Your task to perform on an android device: What's the weather? Image 0: 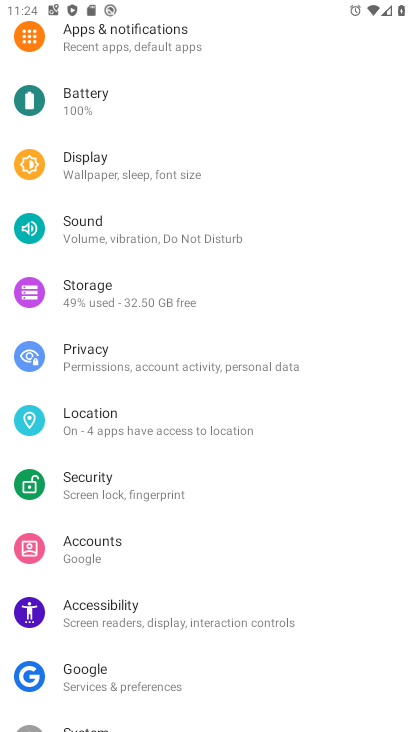
Step 0: press home button
Your task to perform on an android device: What's the weather? Image 1: 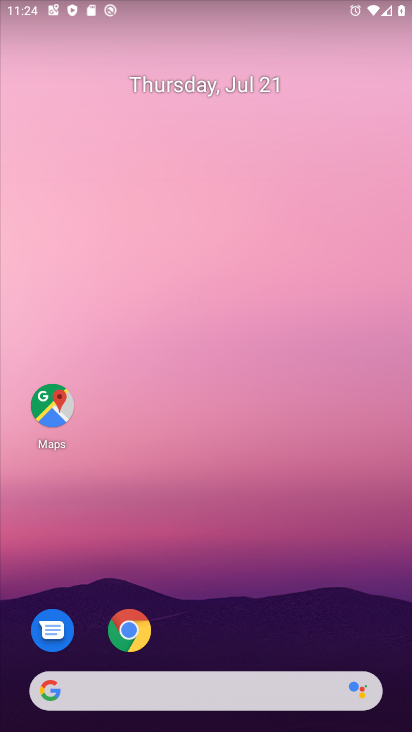
Step 1: click (230, 674)
Your task to perform on an android device: What's the weather? Image 2: 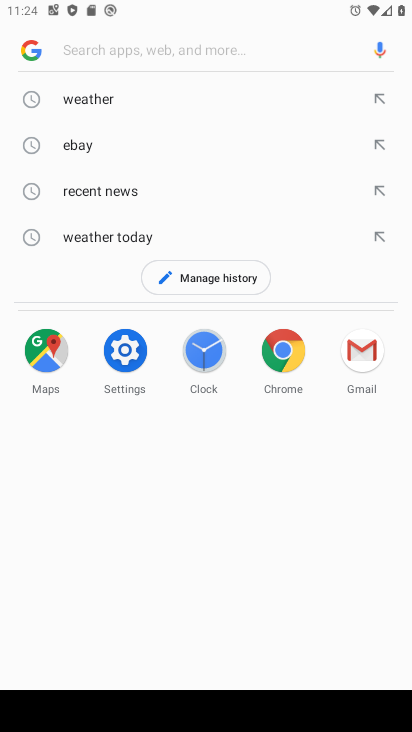
Step 2: click (77, 98)
Your task to perform on an android device: What's the weather? Image 3: 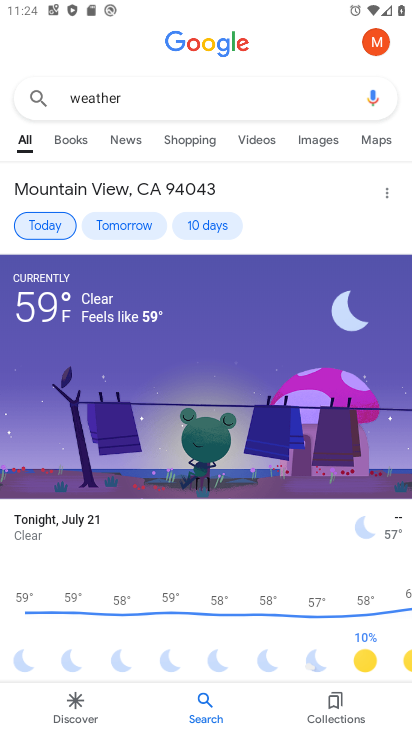
Step 3: task complete